Your task to perform on an android device: open a bookmark in the chrome app Image 0: 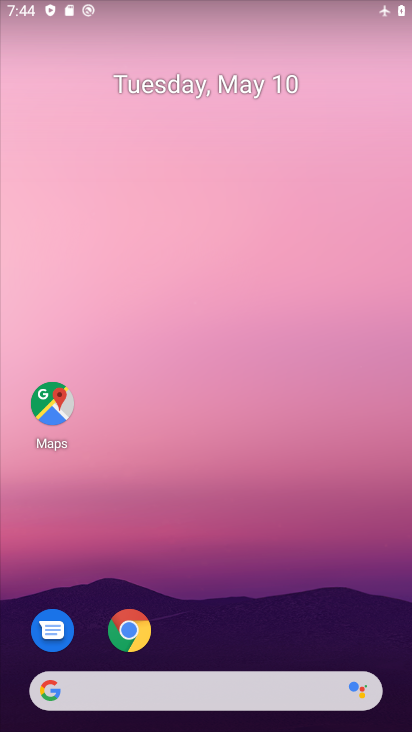
Step 0: click (137, 615)
Your task to perform on an android device: open a bookmark in the chrome app Image 1: 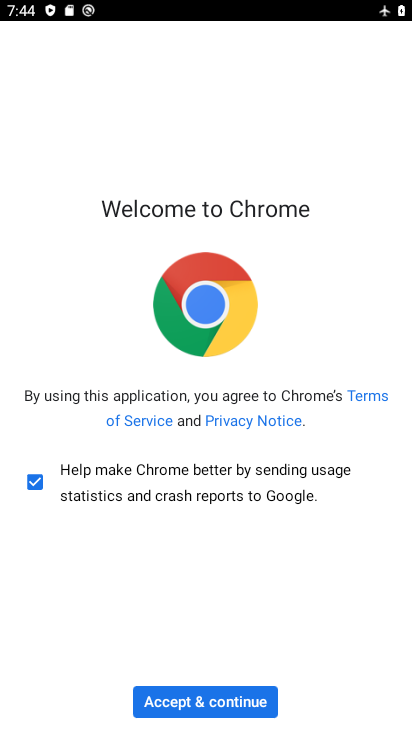
Step 1: click (192, 698)
Your task to perform on an android device: open a bookmark in the chrome app Image 2: 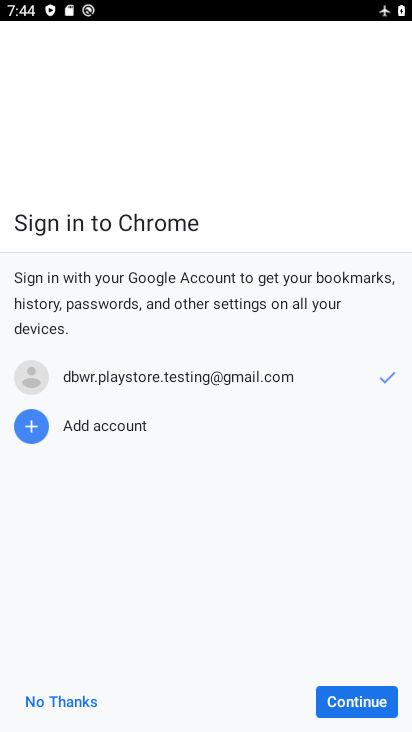
Step 2: click (368, 694)
Your task to perform on an android device: open a bookmark in the chrome app Image 3: 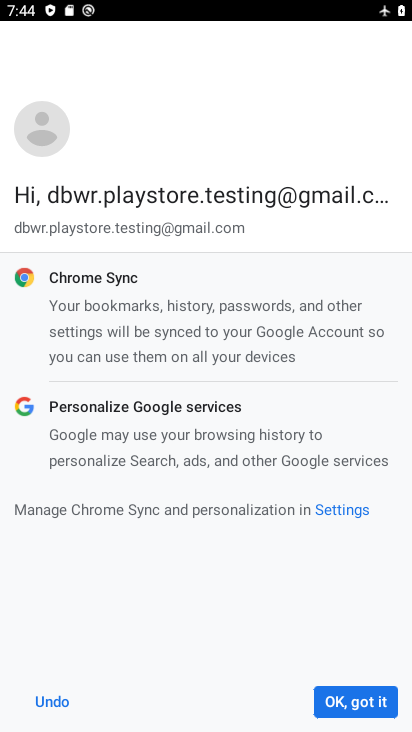
Step 3: click (370, 692)
Your task to perform on an android device: open a bookmark in the chrome app Image 4: 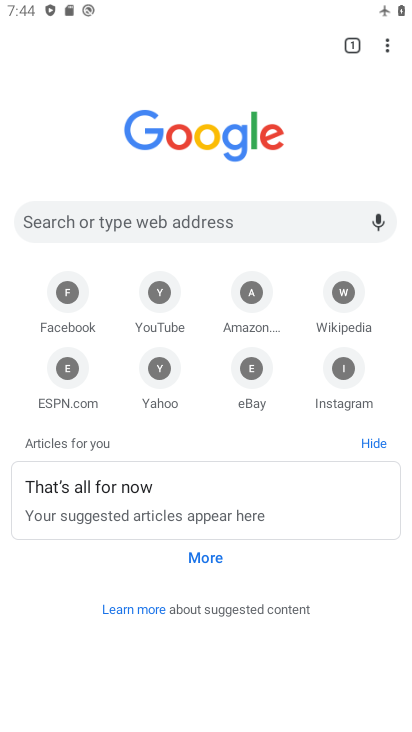
Step 4: click (385, 41)
Your task to perform on an android device: open a bookmark in the chrome app Image 5: 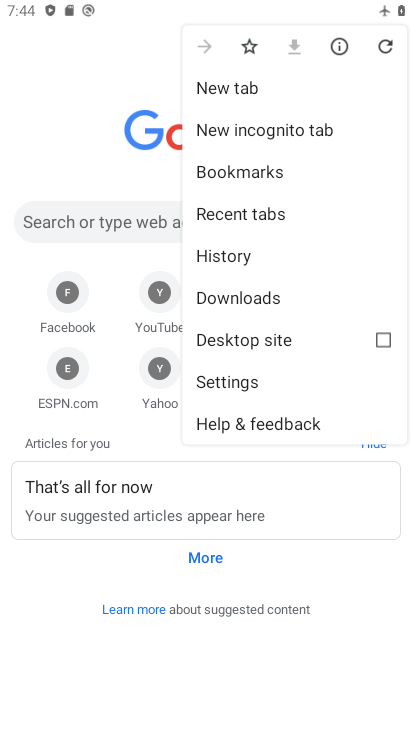
Step 5: click (241, 165)
Your task to perform on an android device: open a bookmark in the chrome app Image 6: 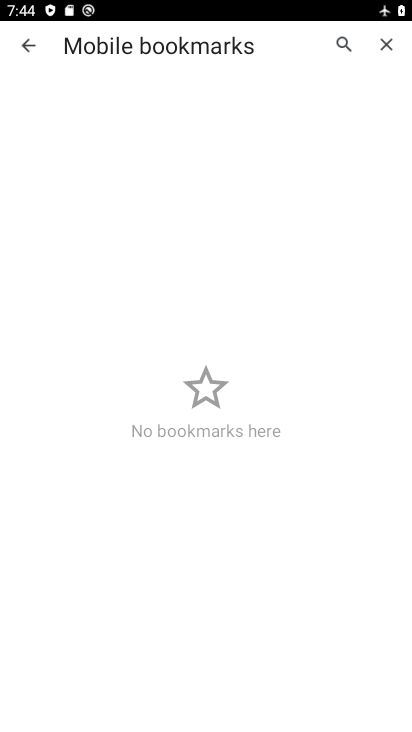
Step 6: task complete